Your task to perform on an android device: Open settings Image 0: 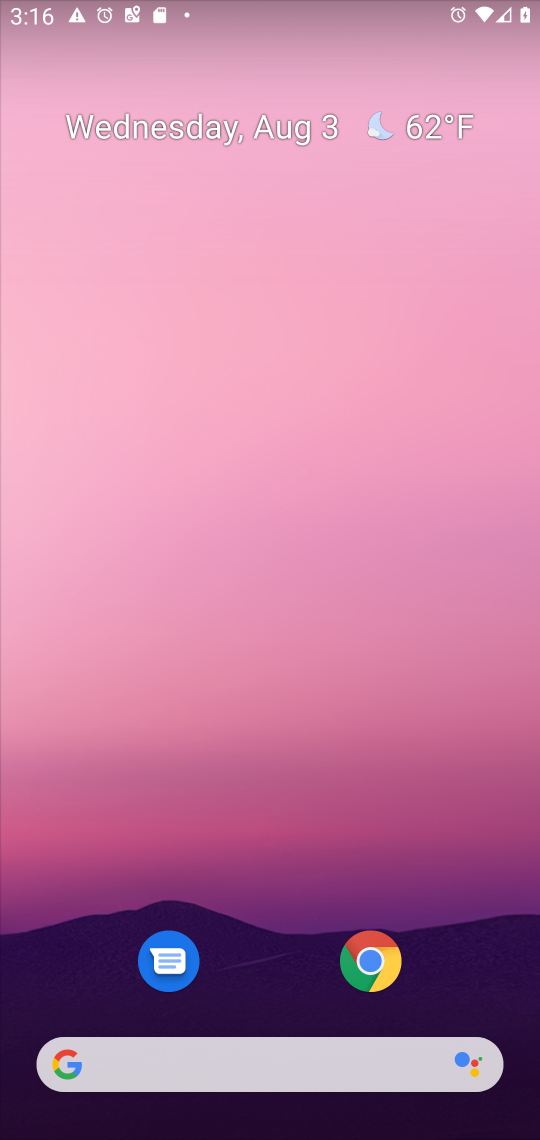
Step 0: drag from (274, 962) to (296, 43)
Your task to perform on an android device: Open settings Image 1: 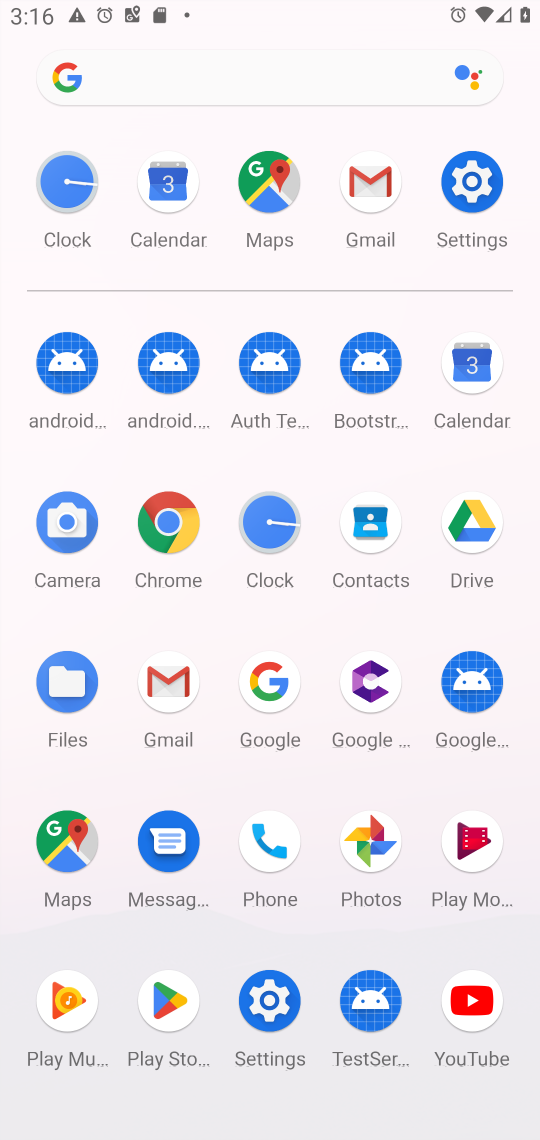
Step 1: click (477, 189)
Your task to perform on an android device: Open settings Image 2: 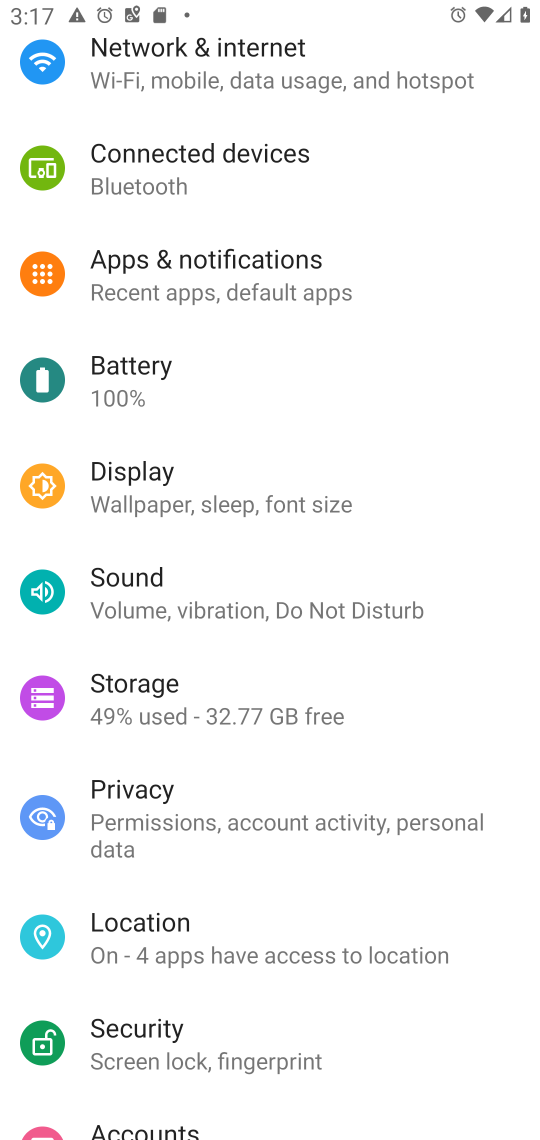
Step 2: task complete